Your task to perform on an android device: Go to settings Image 0: 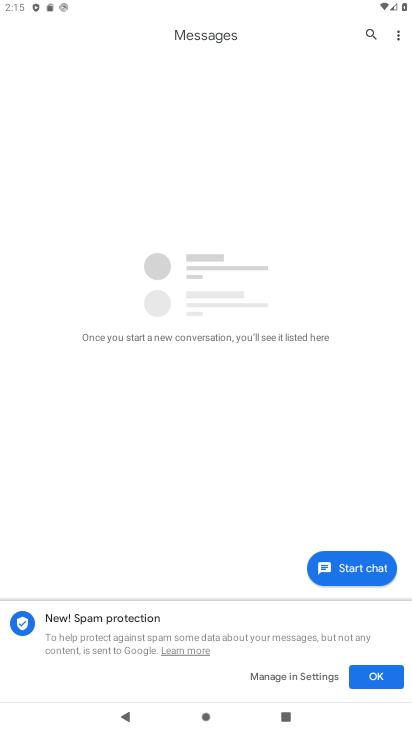
Step 0: press home button
Your task to perform on an android device: Go to settings Image 1: 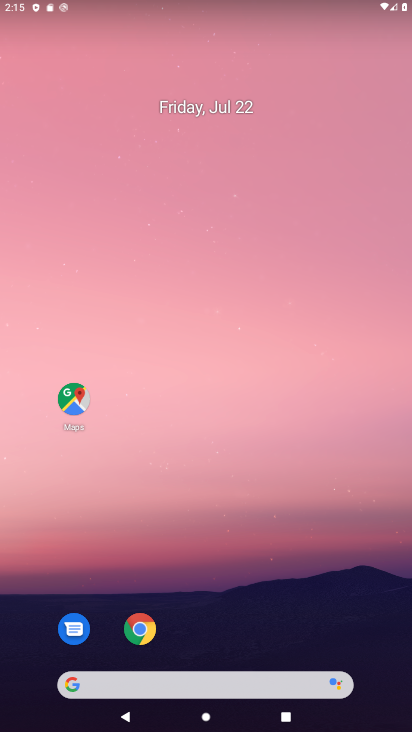
Step 1: drag from (248, 619) to (246, 168)
Your task to perform on an android device: Go to settings Image 2: 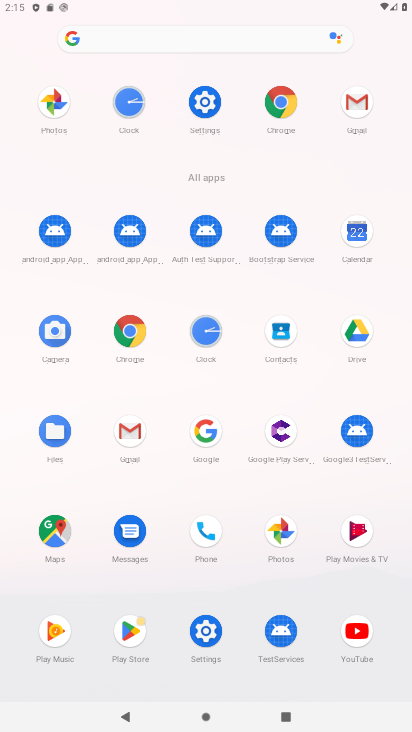
Step 2: click (208, 112)
Your task to perform on an android device: Go to settings Image 3: 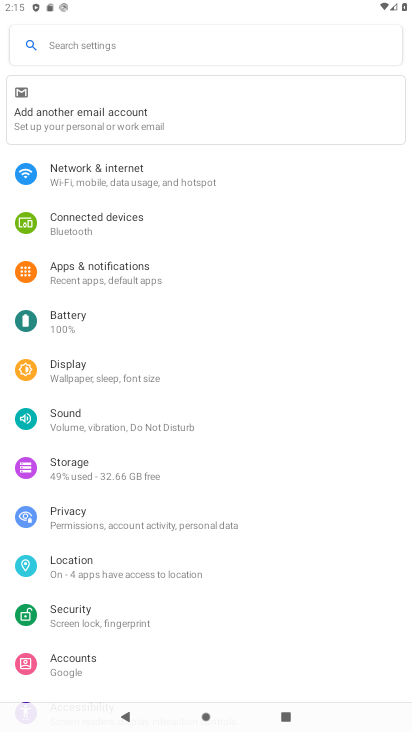
Step 3: task complete